Your task to perform on an android device: toggle sleep mode Image 0: 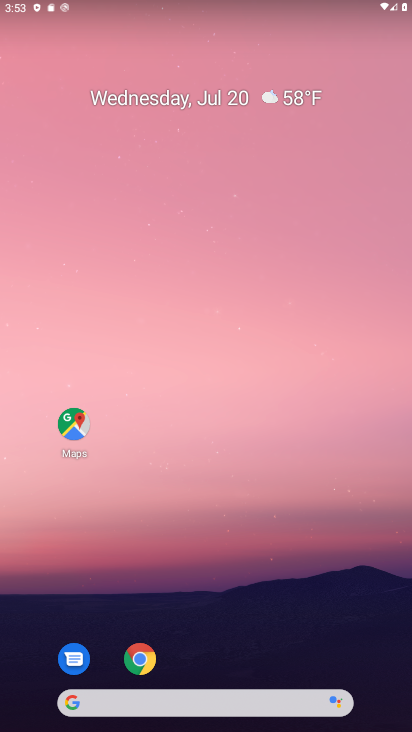
Step 0: drag from (124, 140) to (118, 103)
Your task to perform on an android device: toggle sleep mode Image 1: 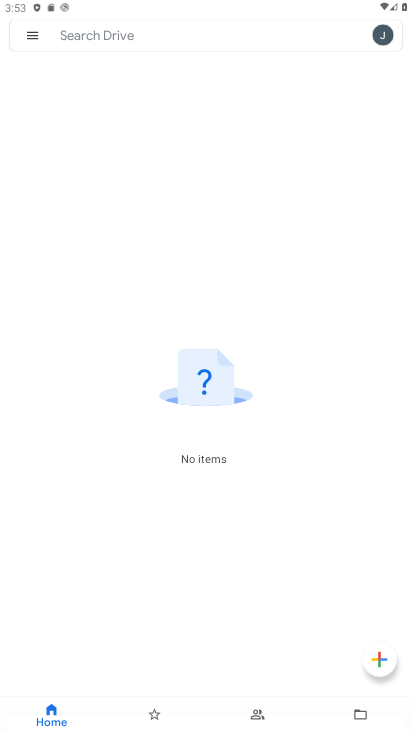
Step 1: press back button
Your task to perform on an android device: toggle sleep mode Image 2: 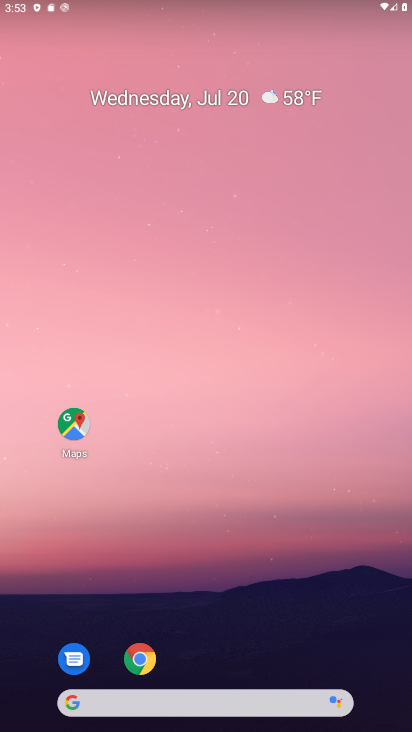
Step 2: drag from (186, 373) to (151, 129)
Your task to perform on an android device: toggle sleep mode Image 3: 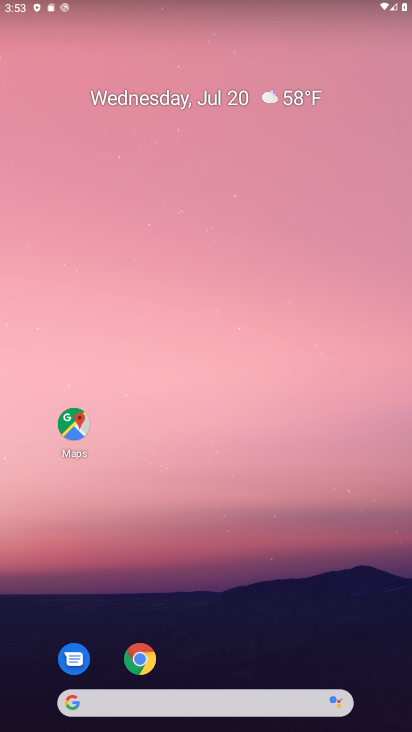
Step 3: drag from (260, 464) to (240, 237)
Your task to perform on an android device: toggle sleep mode Image 4: 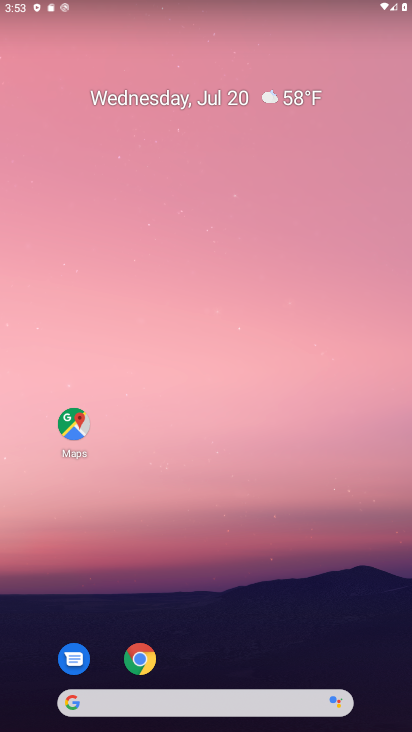
Step 4: drag from (203, 257) to (174, 57)
Your task to perform on an android device: toggle sleep mode Image 5: 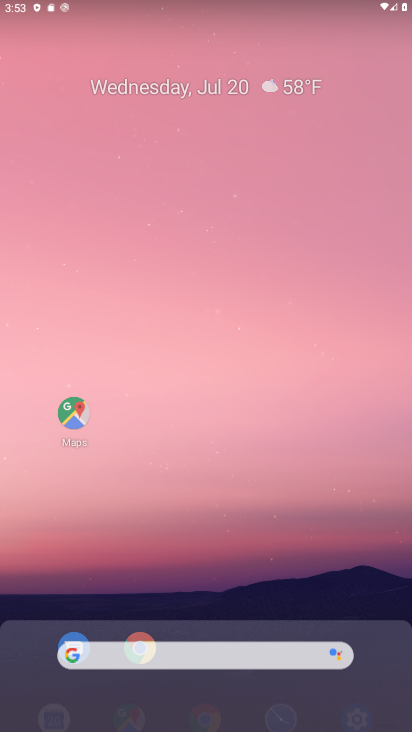
Step 5: drag from (193, 423) to (178, 75)
Your task to perform on an android device: toggle sleep mode Image 6: 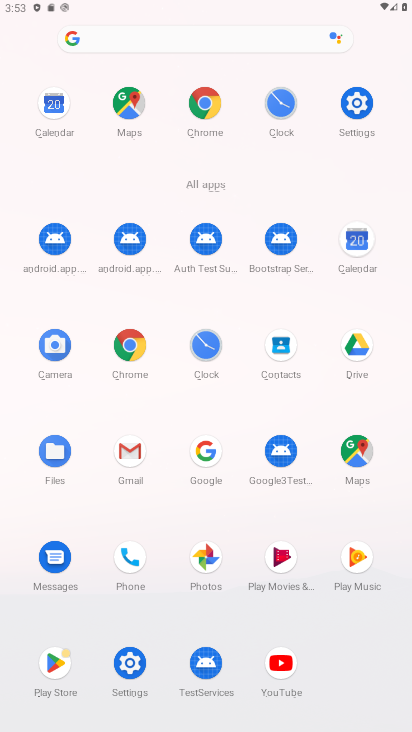
Step 6: drag from (143, 211) to (143, 80)
Your task to perform on an android device: toggle sleep mode Image 7: 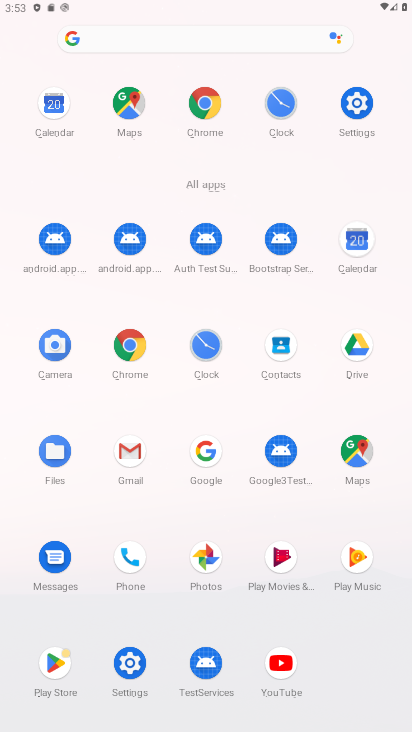
Step 7: click (359, 97)
Your task to perform on an android device: toggle sleep mode Image 8: 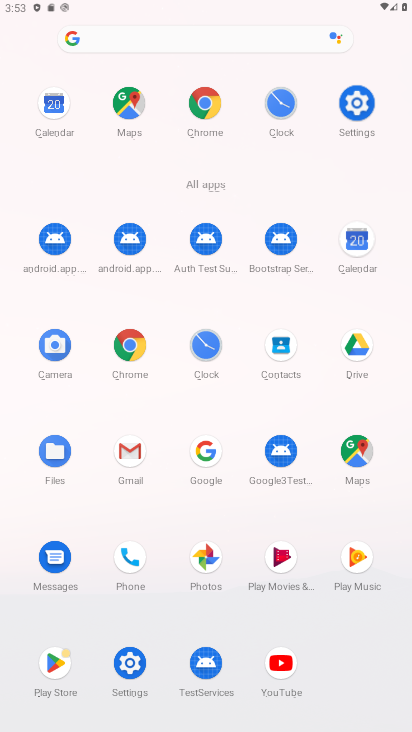
Step 8: click (359, 97)
Your task to perform on an android device: toggle sleep mode Image 9: 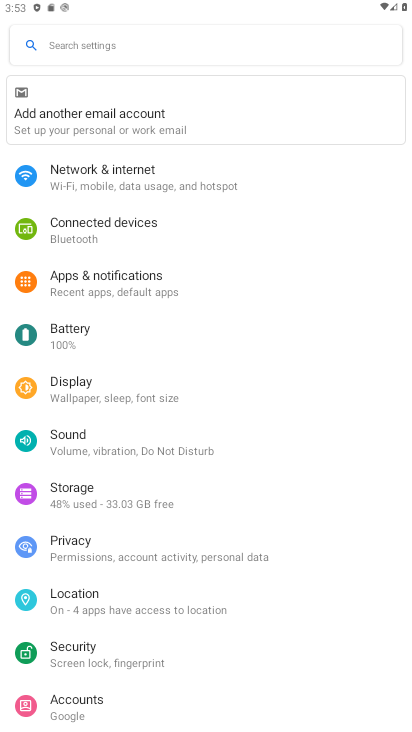
Step 9: click (84, 391)
Your task to perform on an android device: toggle sleep mode Image 10: 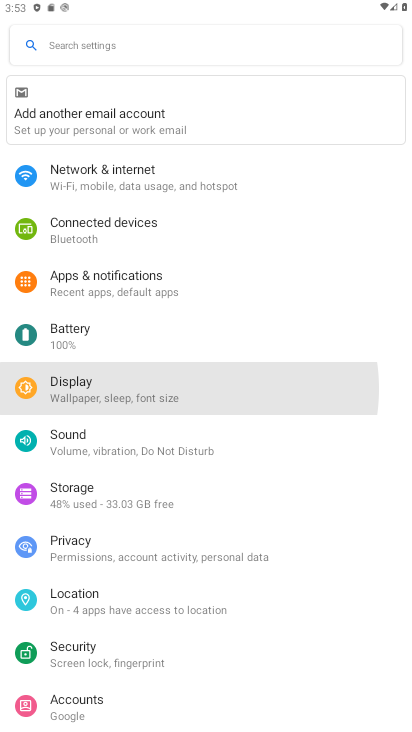
Step 10: click (79, 394)
Your task to perform on an android device: toggle sleep mode Image 11: 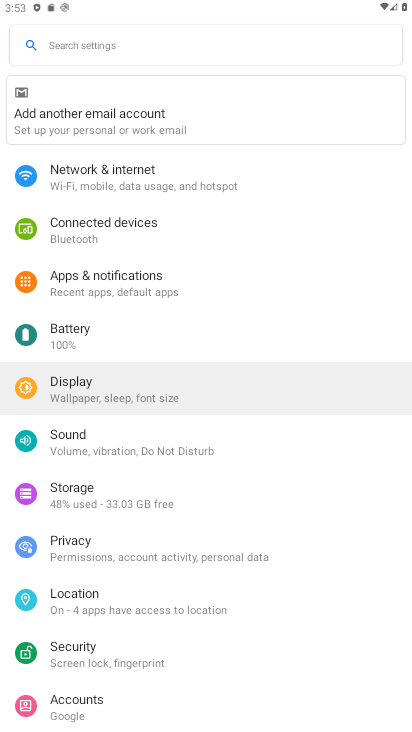
Step 11: click (79, 394)
Your task to perform on an android device: toggle sleep mode Image 12: 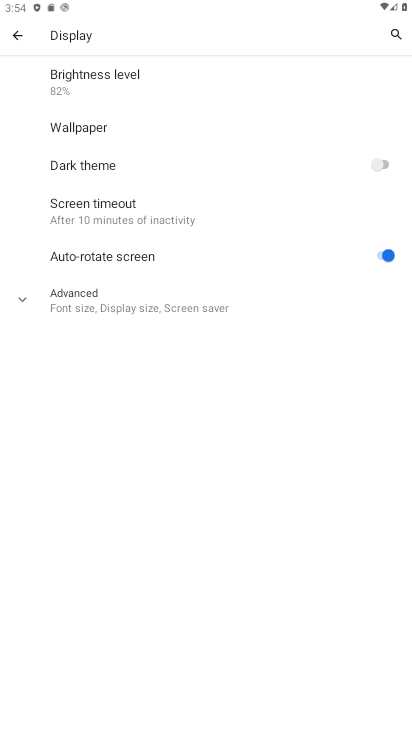
Step 12: click (98, 221)
Your task to perform on an android device: toggle sleep mode Image 13: 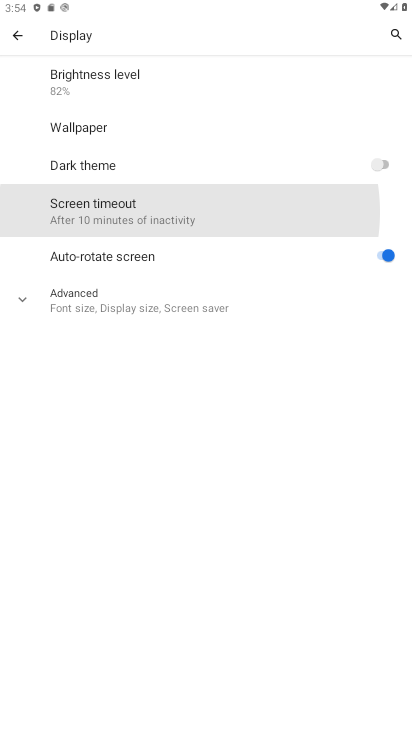
Step 13: click (99, 222)
Your task to perform on an android device: toggle sleep mode Image 14: 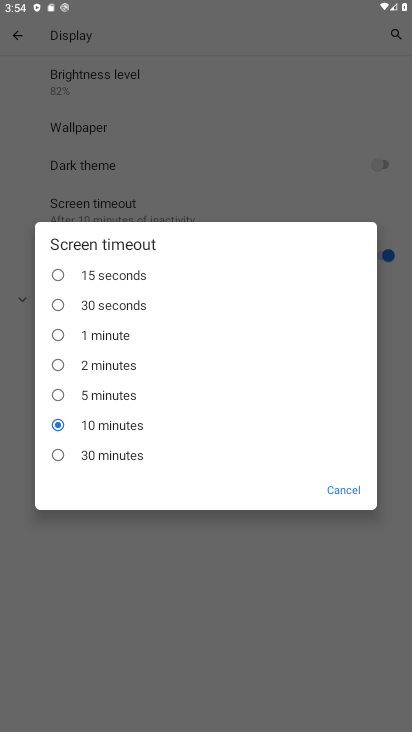
Step 14: click (52, 363)
Your task to perform on an android device: toggle sleep mode Image 15: 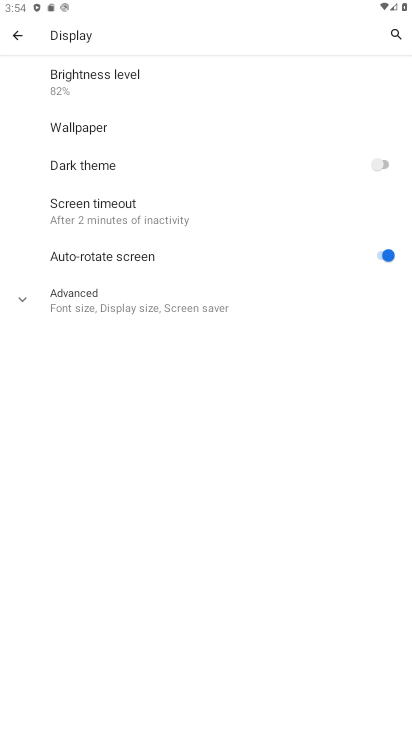
Step 15: task complete